Your task to perform on an android device: open the mobile data screen to see how much data has been used Image 0: 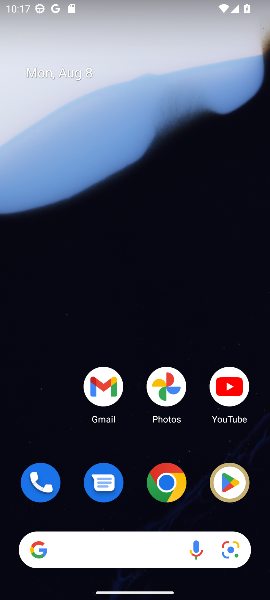
Step 0: drag from (129, 443) to (214, 9)
Your task to perform on an android device: open the mobile data screen to see how much data has been used Image 1: 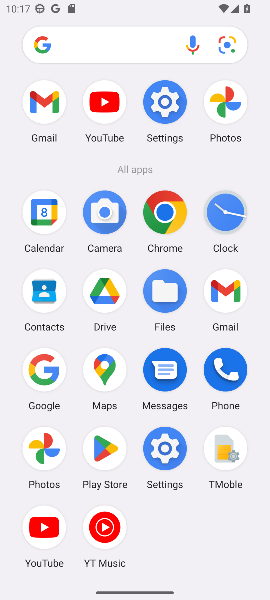
Step 1: click (164, 445)
Your task to perform on an android device: open the mobile data screen to see how much data has been used Image 2: 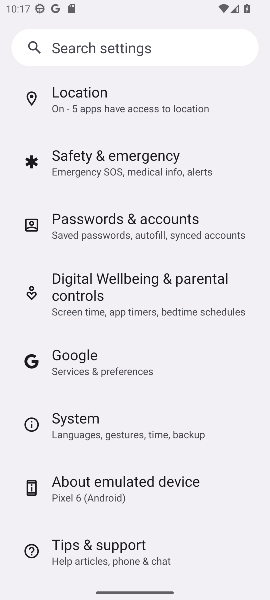
Step 2: drag from (109, 199) to (129, 458)
Your task to perform on an android device: open the mobile data screen to see how much data has been used Image 3: 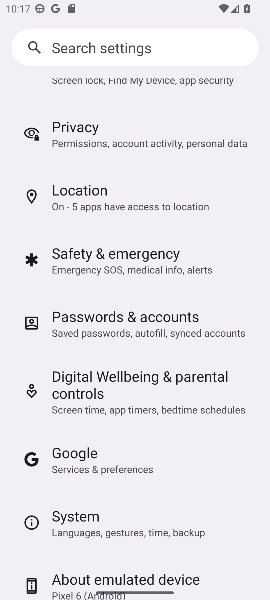
Step 3: drag from (172, 40) to (170, 302)
Your task to perform on an android device: open the mobile data screen to see how much data has been used Image 4: 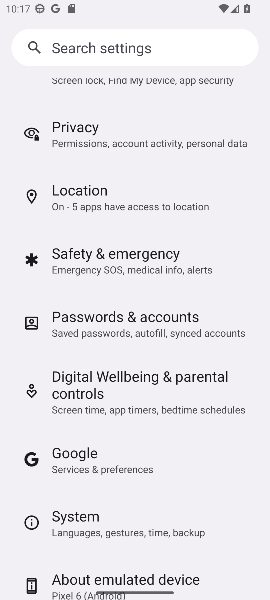
Step 4: drag from (129, 121) to (158, 441)
Your task to perform on an android device: open the mobile data screen to see how much data has been used Image 5: 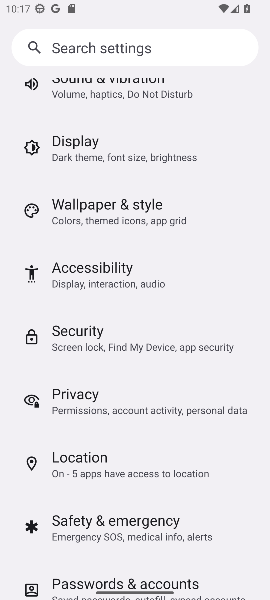
Step 5: drag from (168, 104) to (189, 363)
Your task to perform on an android device: open the mobile data screen to see how much data has been used Image 6: 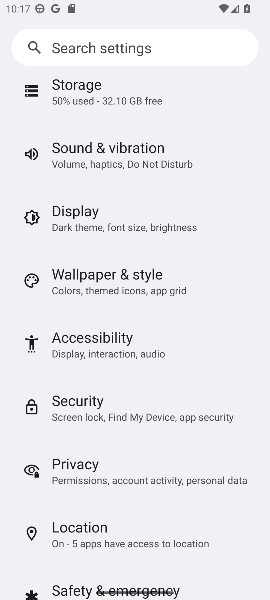
Step 6: drag from (169, 159) to (164, 552)
Your task to perform on an android device: open the mobile data screen to see how much data has been used Image 7: 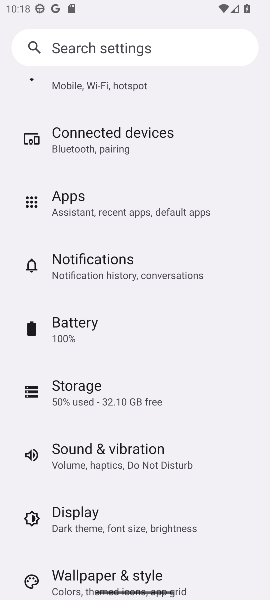
Step 7: drag from (168, 137) to (187, 360)
Your task to perform on an android device: open the mobile data screen to see how much data has been used Image 8: 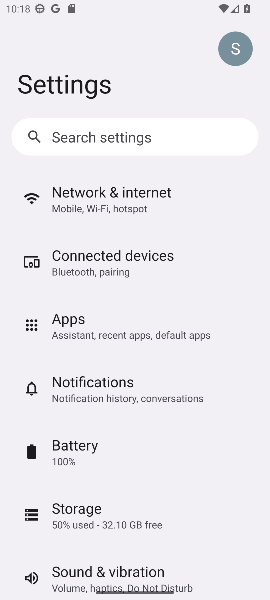
Step 8: click (130, 195)
Your task to perform on an android device: open the mobile data screen to see how much data has been used Image 9: 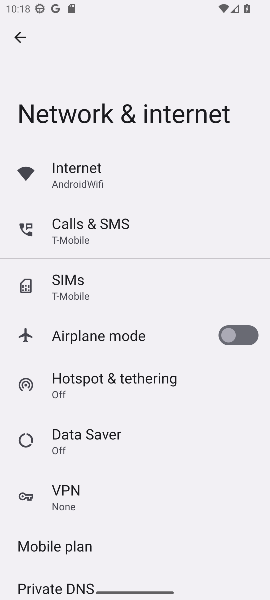
Step 9: click (74, 173)
Your task to perform on an android device: open the mobile data screen to see how much data has been used Image 10: 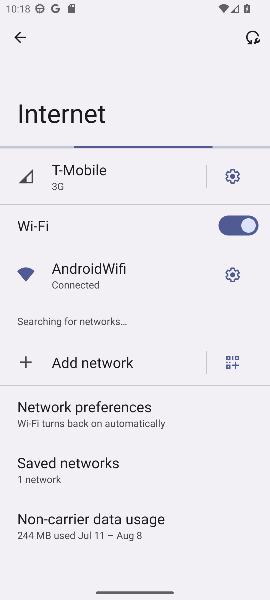
Step 10: click (88, 520)
Your task to perform on an android device: open the mobile data screen to see how much data has been used Image 11: 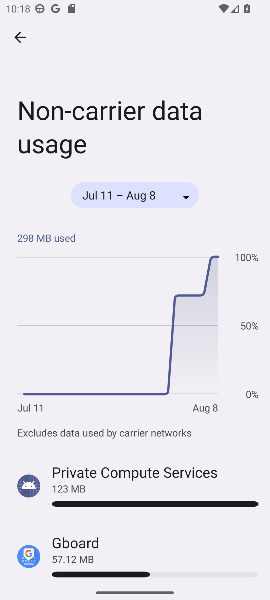
Step 11: task complete